Your task to perform on an android device: Go to Yahoo.com Image 0: 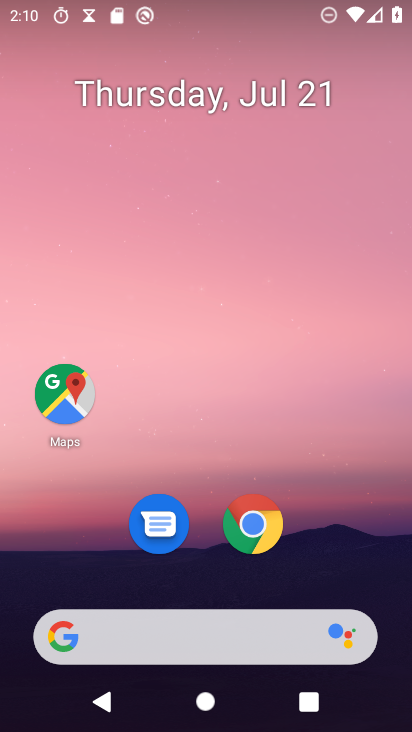
Step 0: click (250, 529)
Your task to perform on an android device: Go to Yahoo.com Image 1: 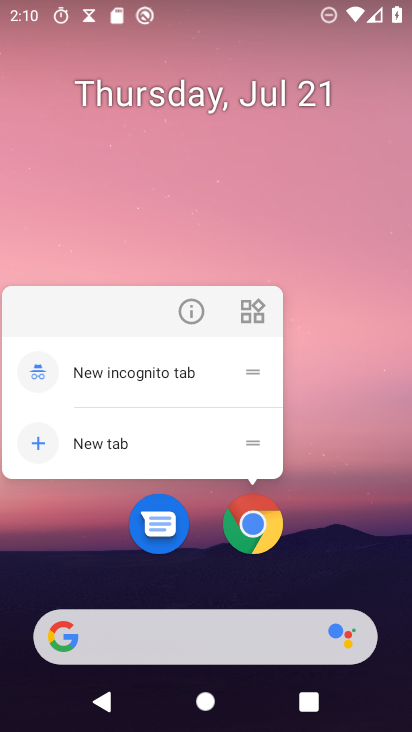
Step 1: click (260, 528)
Your task to perform on an android device: Go to Yahoo.com Image 2: 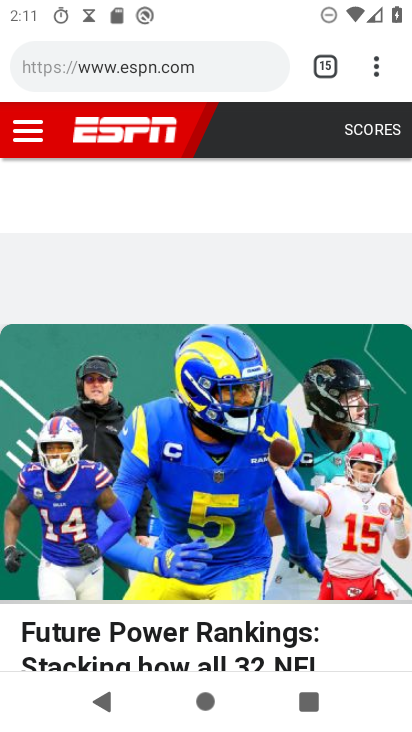
Step 2: drag from (378, 72) to (249, 133)
Your task to perform on an android device: Go to Yahoo.com Image 3: 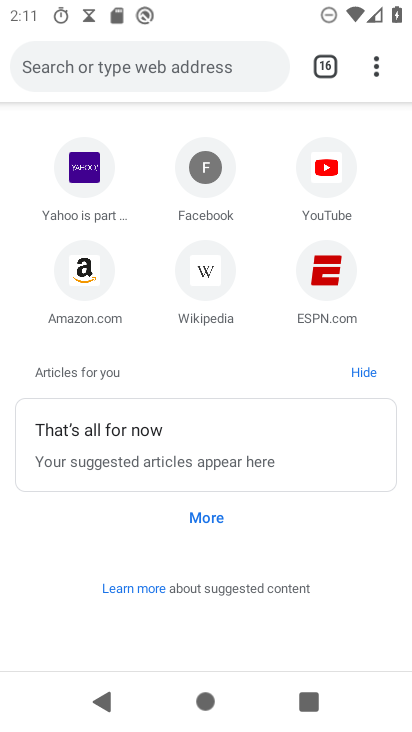
Step 3: click (86, 178)
Your task to perform on an android device: Go to Yahoo.com Image 4: 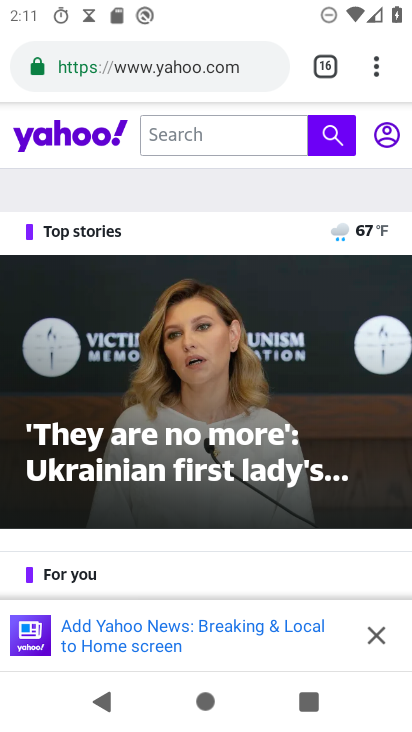
Step 4: task complete